Your task to perform on an android device: Search for dell xps on bestbuy, select the first entry, and add it to the cart. Image 0: 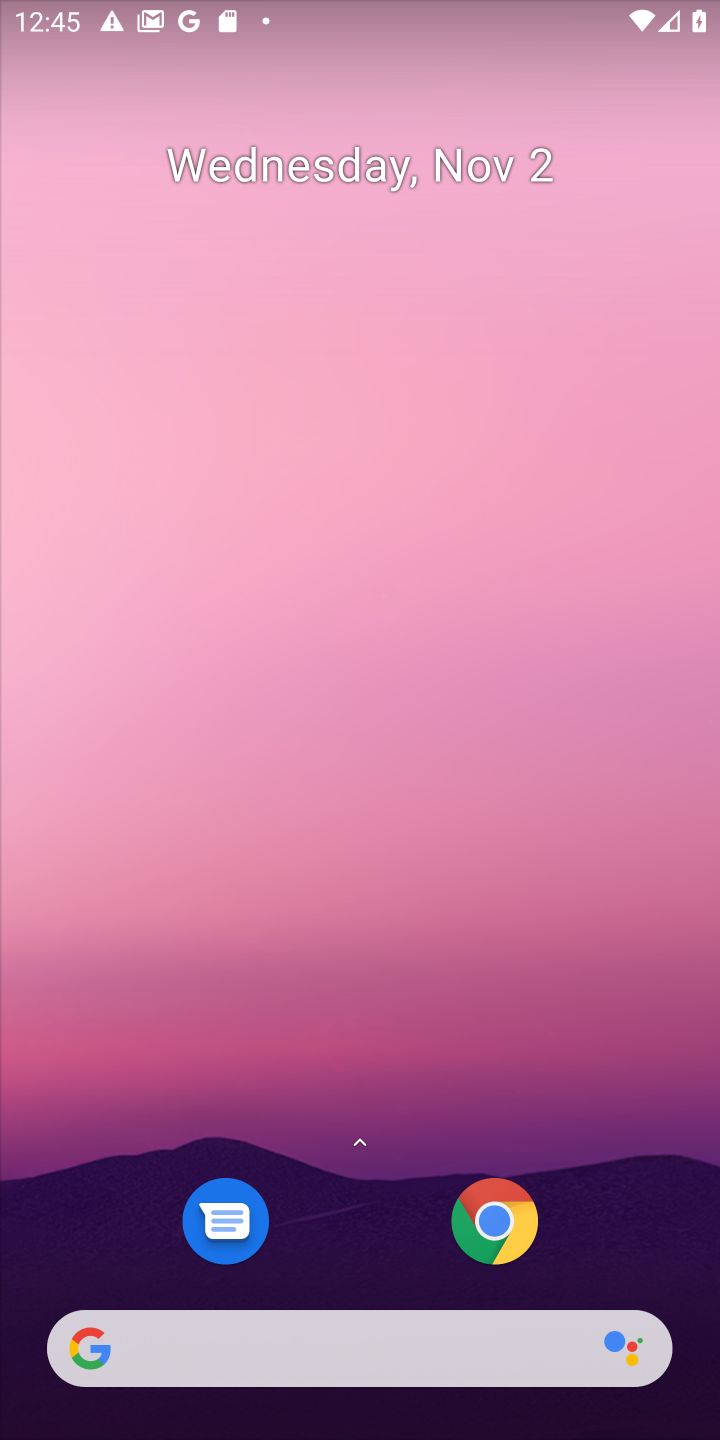
Step 0: click (383, 1367)
Your task to perform on an android device: Search for dell xps on bestbuy, select the first entry, and add it to the cart. Image 1: 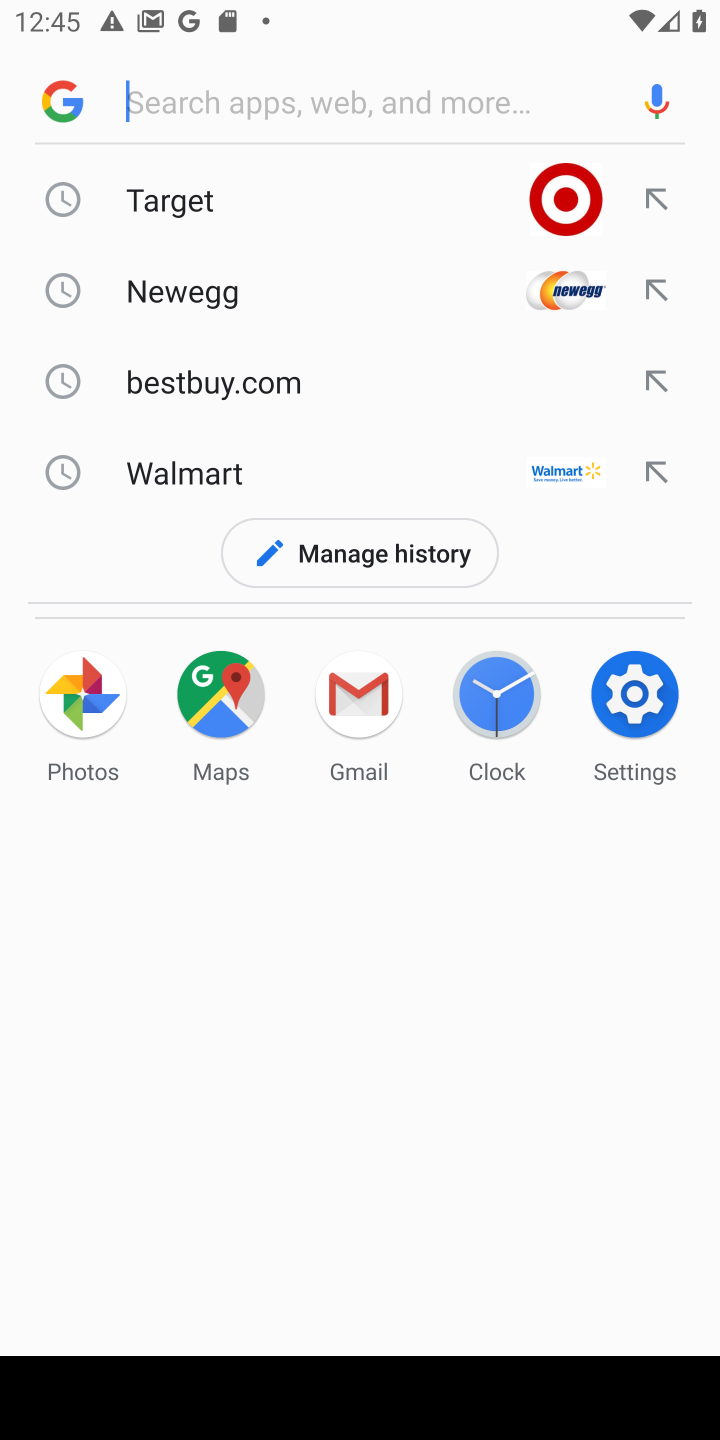
Step 1: click (145, 389)
Your task to perform on an android device: Search for dell xps on bestbuy, select the first entry, and add it to the cart. Image 2: 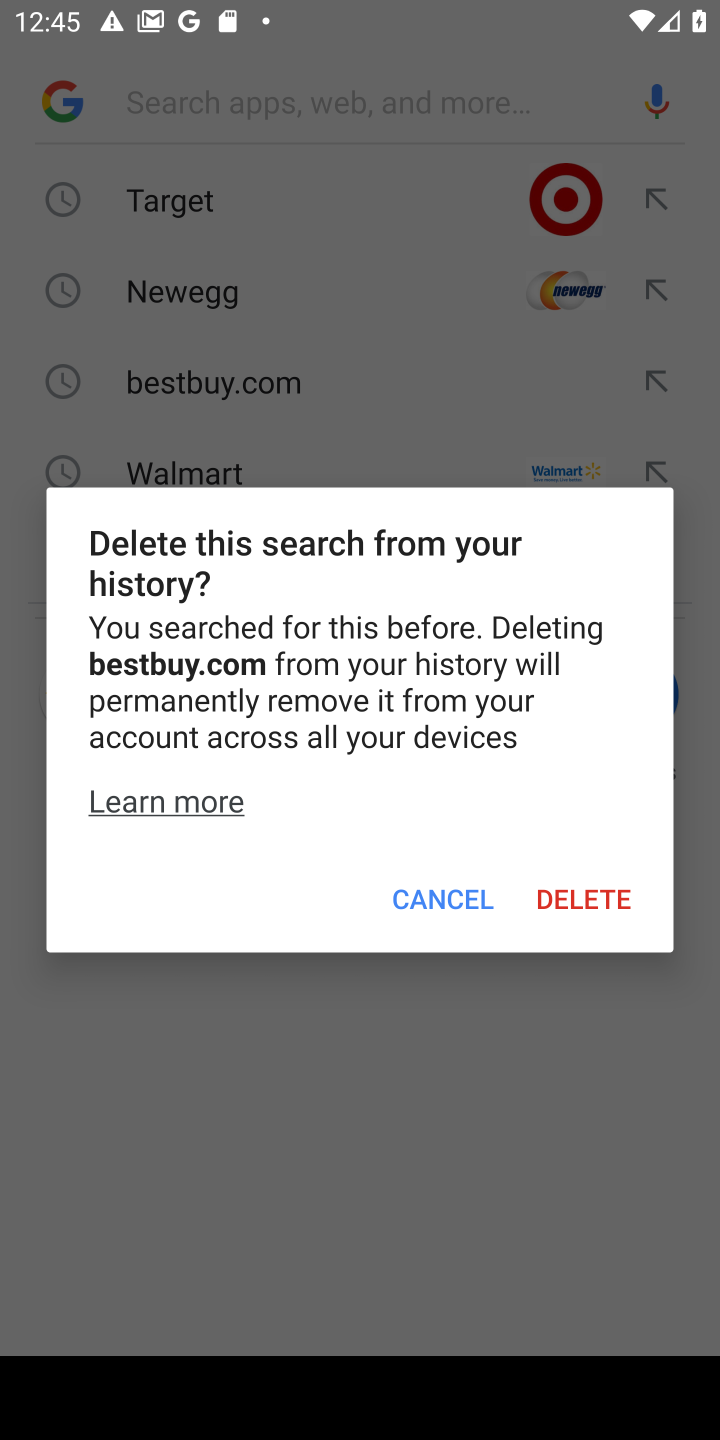
Step 2: click (427, 915)
Your task to perform on an android device: Search for dell xps on bestbuy, select the first entry, and add it to the cart. Image 3: 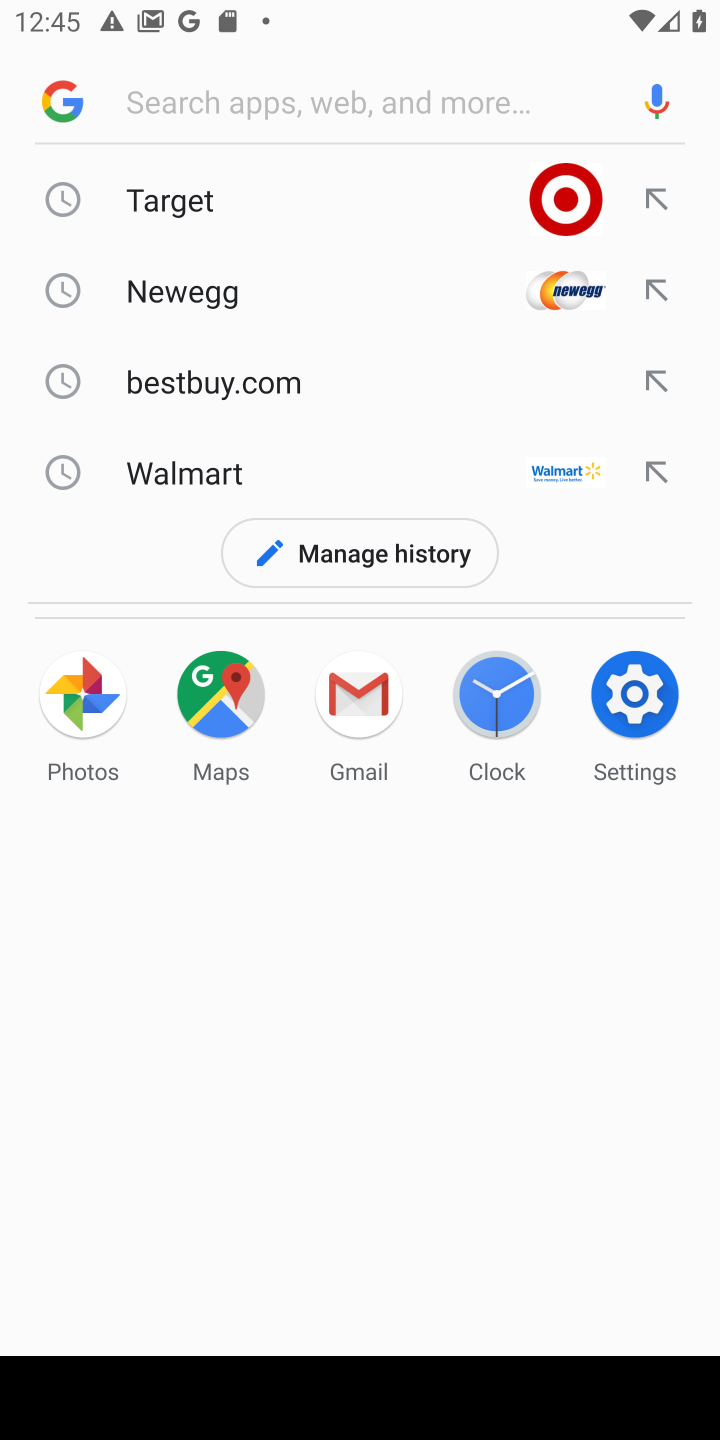
Step 3: type "dell xps"
Your task to perform on an android device: Search for dell xps on bestbuy, select the first entry, and add it to the cart. Image 4: 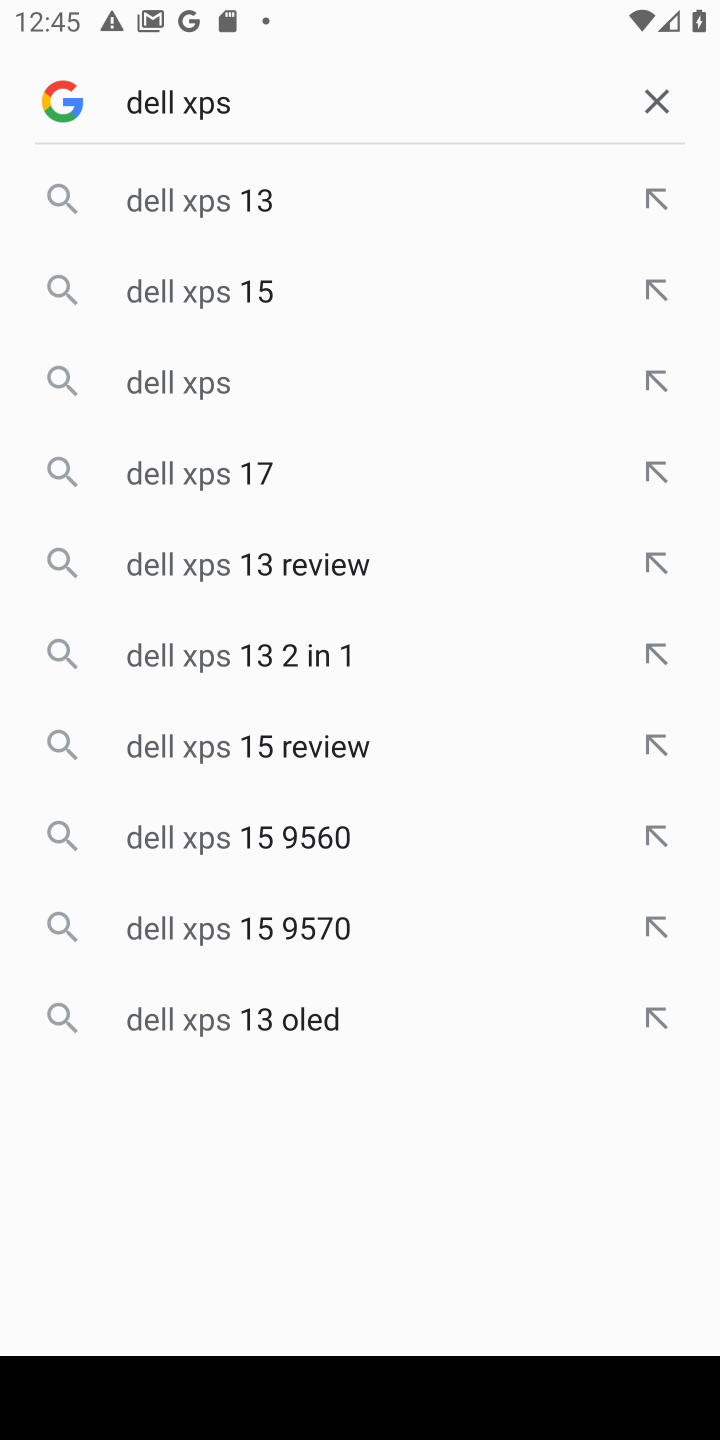
Step 4: click (271, 206)
Your task to perform on an android device: Search for dell xps on bestbuy, select the first entry, and add it to the cart. Image 5: 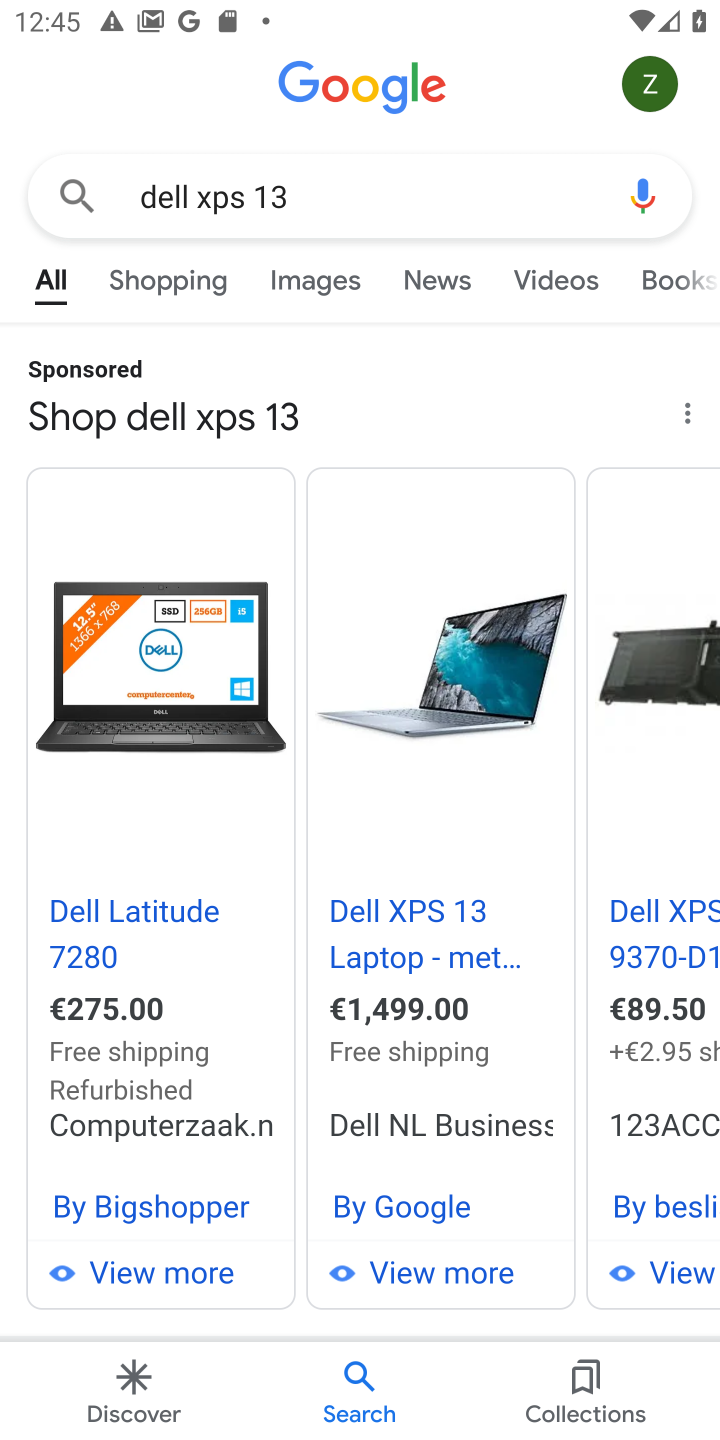
Step 5: task complete